Your task to perform on an android device: turn notification dots off Image 0: 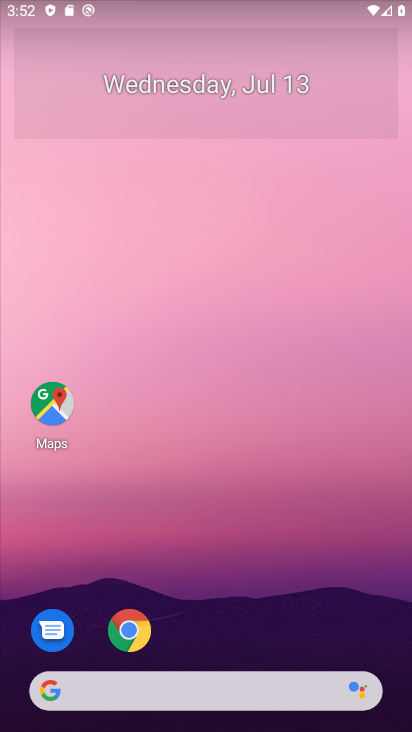
Step 0: press home button
Your task to perform on an android device: turn notification dots off Image 1: 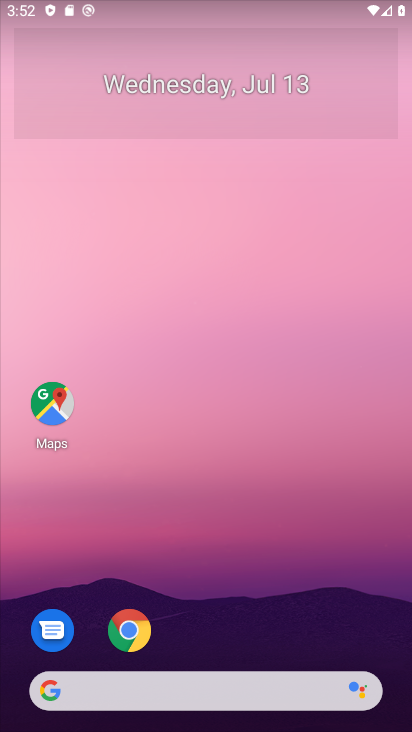
Step 1: drag from (199, 645) to (201, 179)
Your task to perform on an android device: turn notification dots off Image 2: 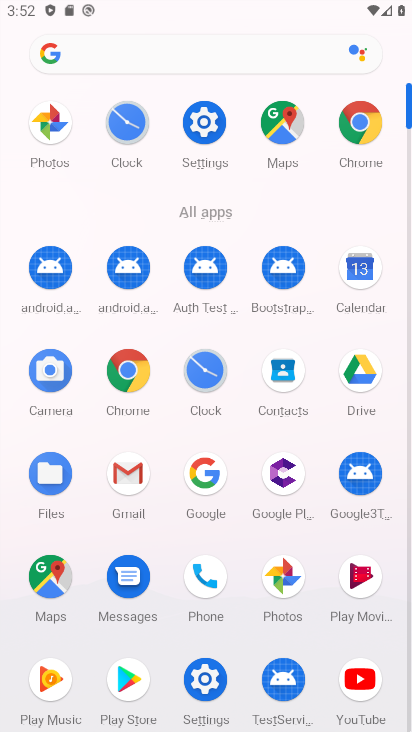
Step 2: click (214, 131)
Your task to perform on an android device: turn notification dots off Image 3: 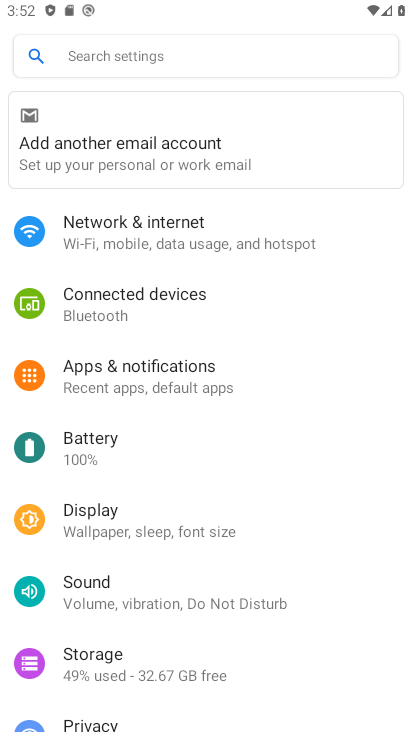
Step 3: click (128, 376)
Your task to perform on an android device: turn notification dots off Image 4: 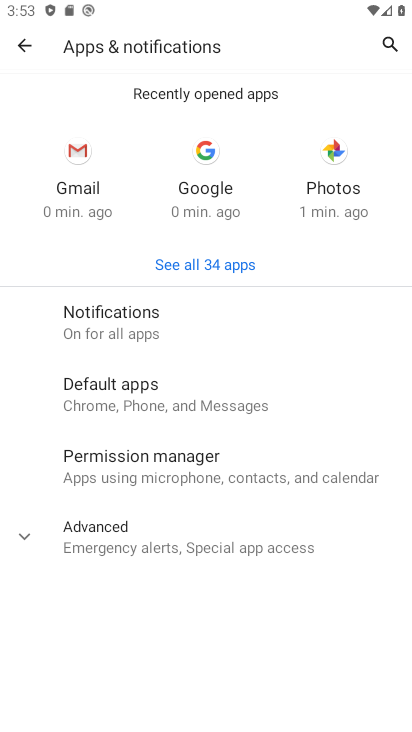
Step 4: click (118, 315)
Your task to perform on an android device: turn notification dots off Image 5: 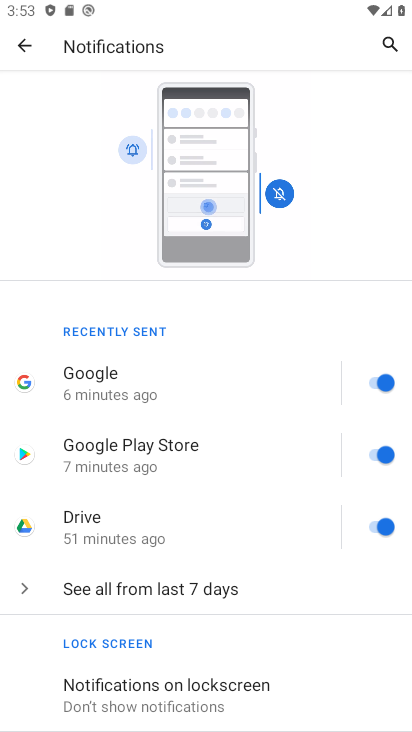
Step 5: drag from (222, 647) to (233, 202)
Your task to perform on an android device: turn notification dots off Image 6: 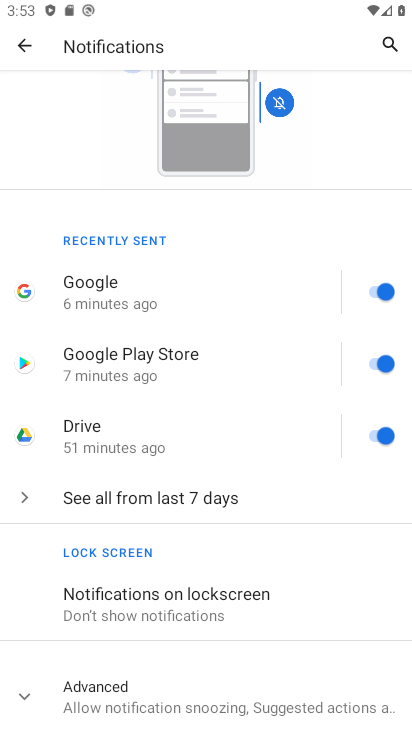
Step 6: click (96, 697)
Your task to perform on an android device: turn notification dots off Image 7: 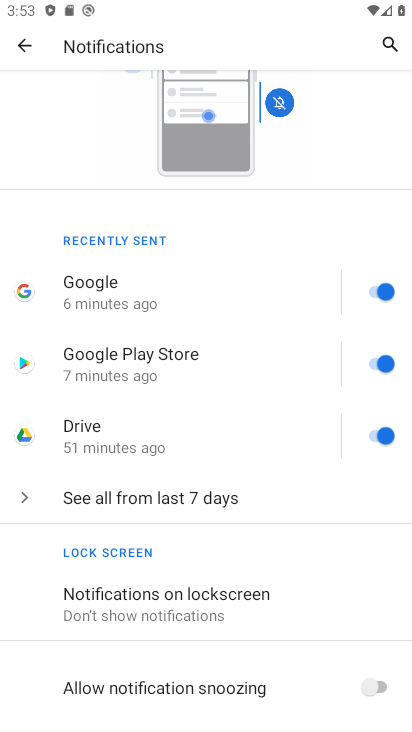
Step 7: task complete